Your task to perform on an android device: Show the shopping cart on bestbuy.com. Add "asus rog" to the cart on bestbuy.com, then select checkout. Image 0: 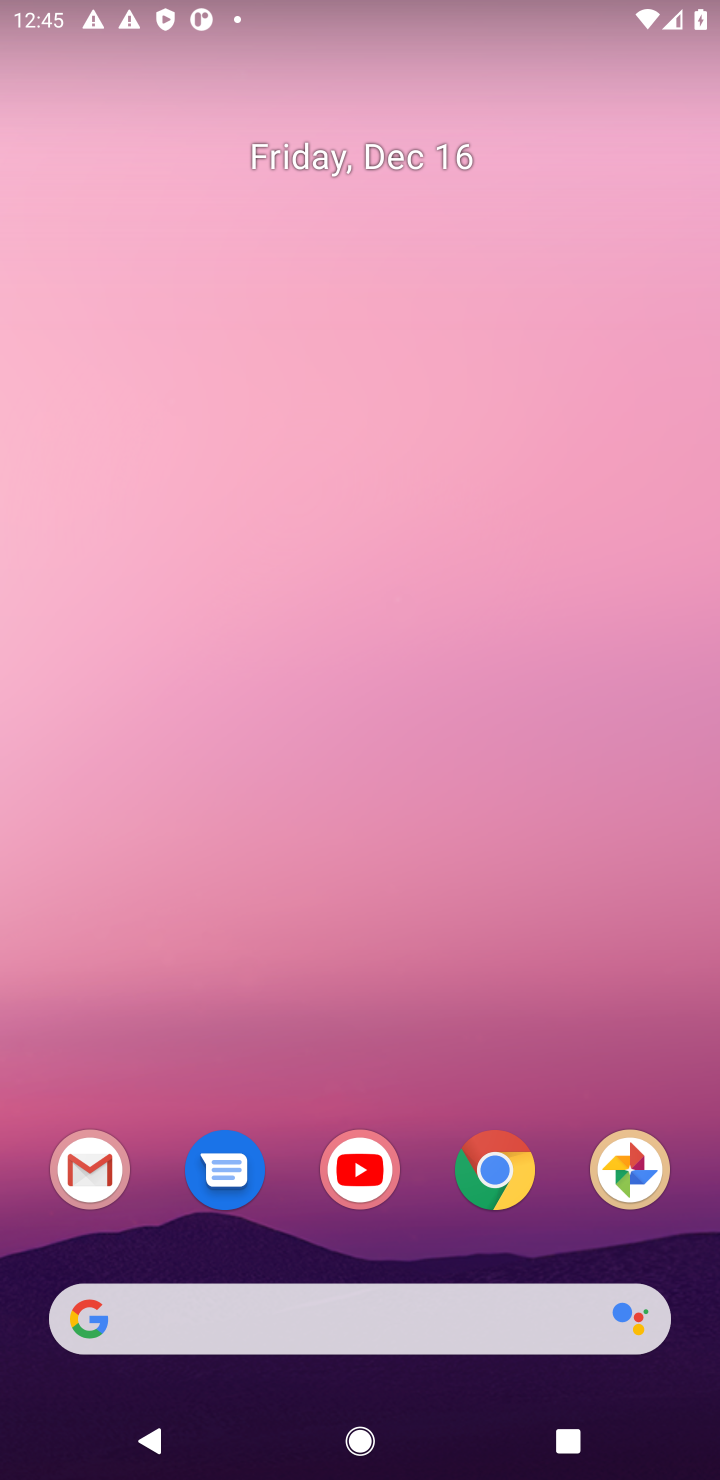
Step 0: click (493, 1158)
Your task to perform on an android device: Show the shopping cart on bestbuy.com. Add "asus rog" to the cart on bestbuy.com, then select checkout. Image 1: 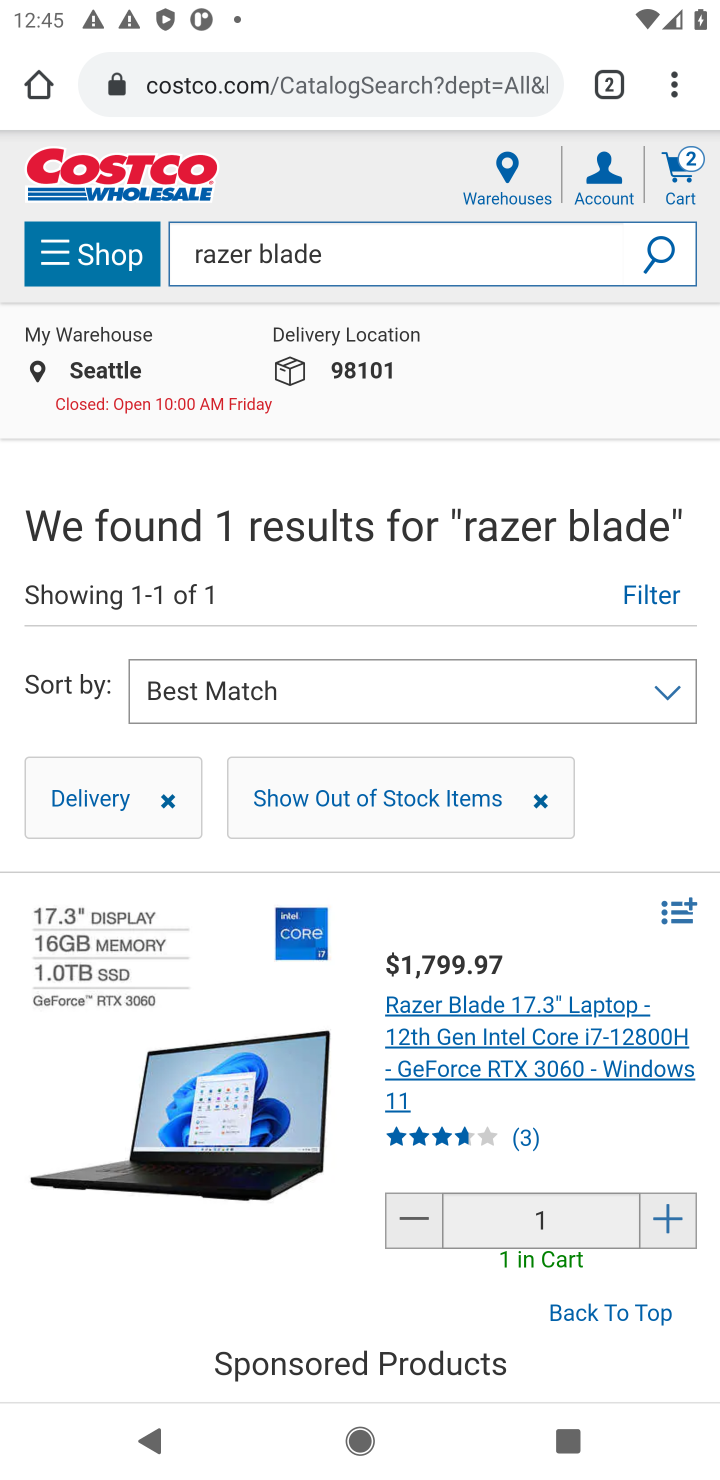
Step 1: click (301, 91)
Your task to perform on an android device: Show the shopping cart on bestbuy.com. Add "asus rog" to the cart on bestbuy.com, then select checkout. Image 2: 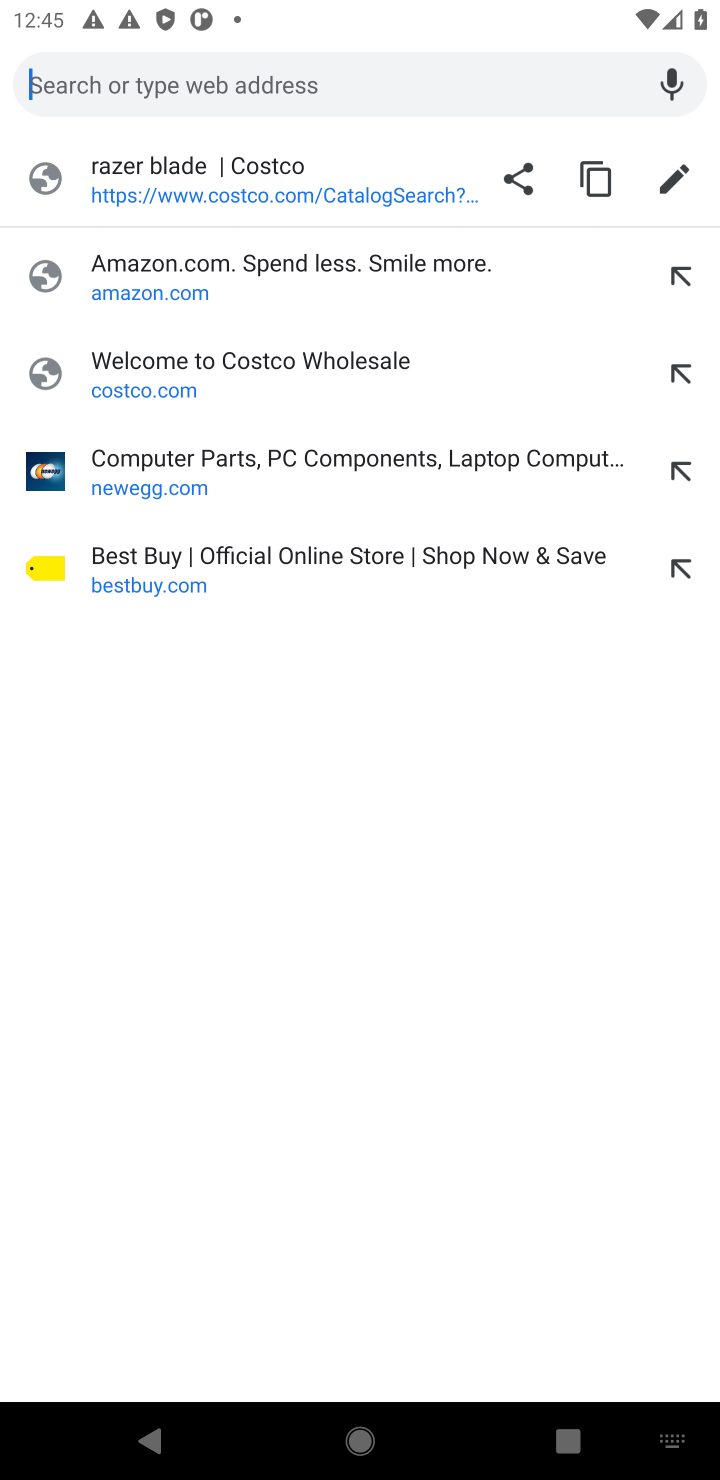
Step 2: click (147, 566)
Your task to perform on an android device: Show the shopping cart on bestbuy.com. Add "asus rog" to the cart on bestbuy.com, then select checkout. Image 3: 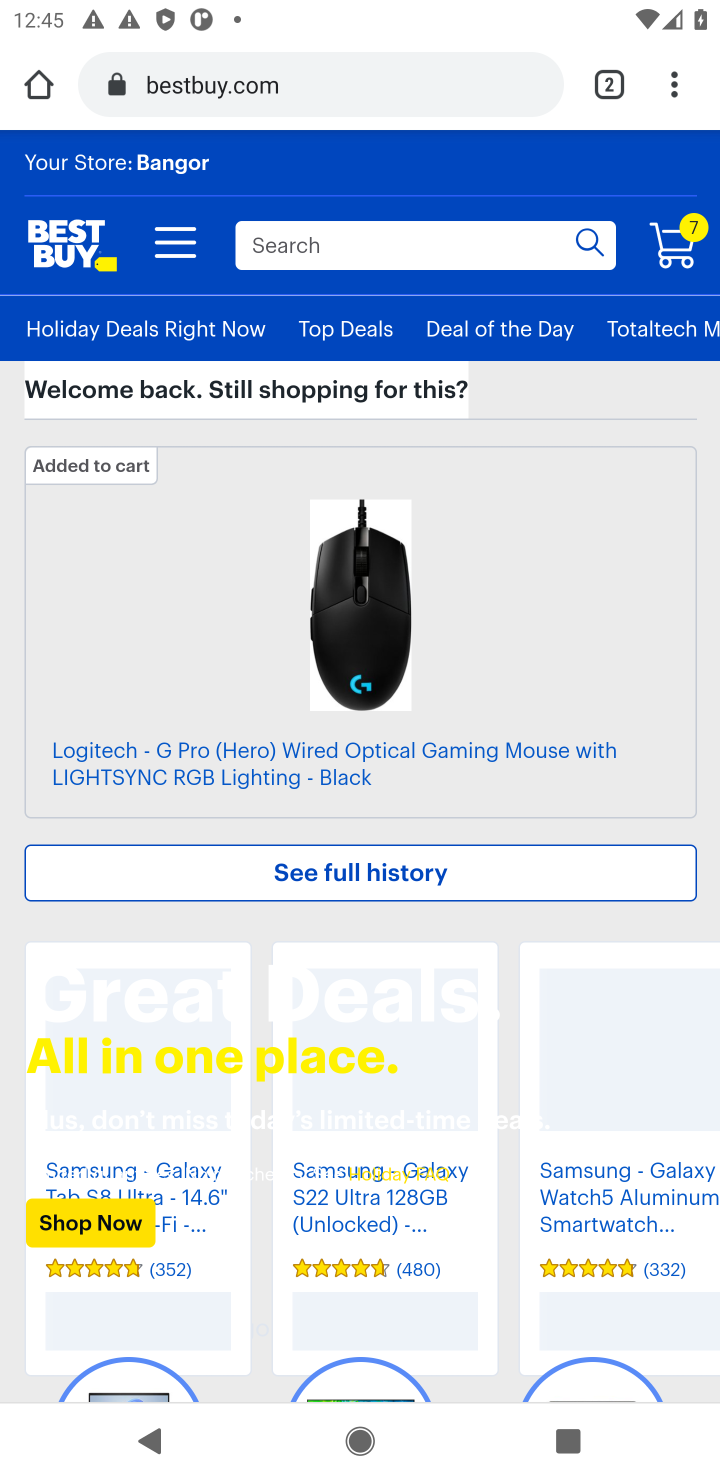
Step 3: click (672, 248)
Your task to perform on an android device: Show the shopping cart on bestbuy.com. Add "asus rog" to the cart on bestbuy.com, then select checkout. Image 4: 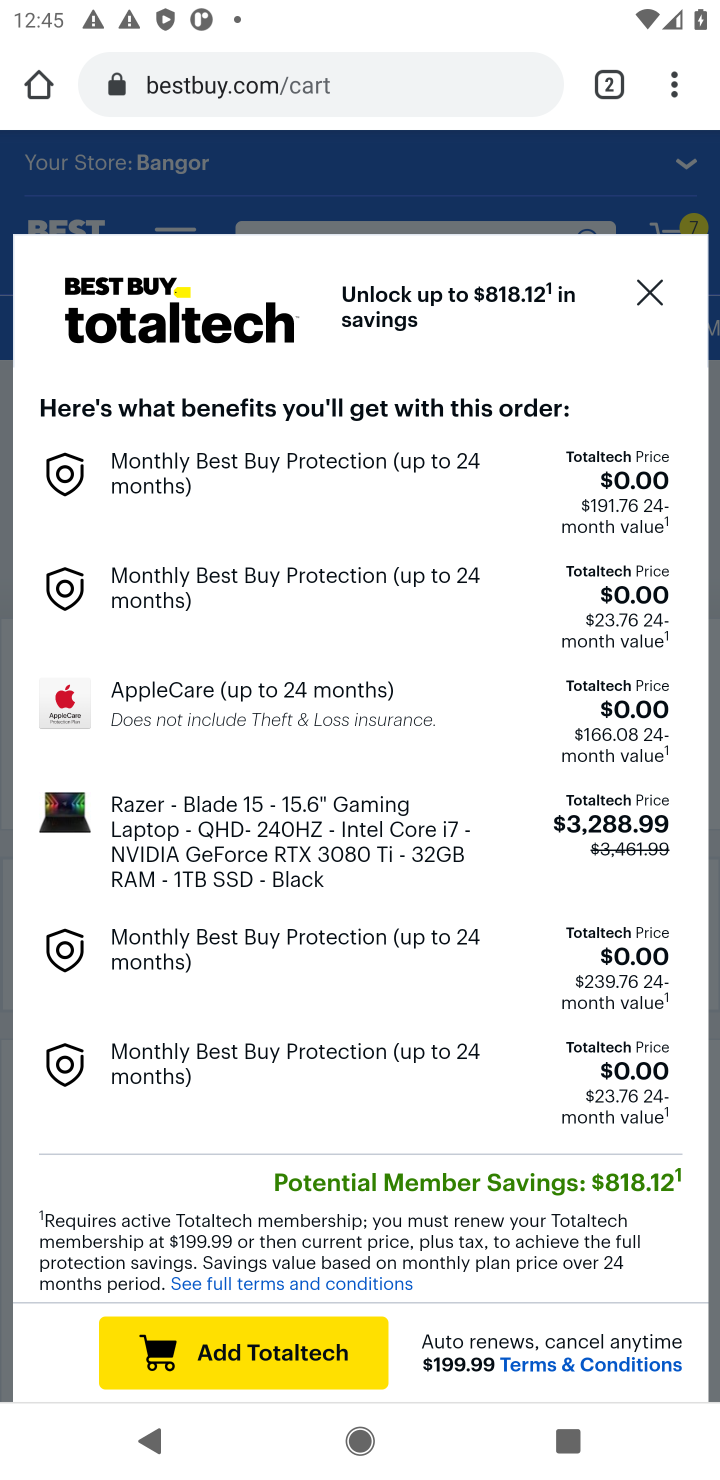
Step 4: click (646, 295)
Your task to perform on an android device: Show the shopping cart on bestbuy.com. Add "asus rog" to the cart on bestbuy.com, then select checkout. Image 5: 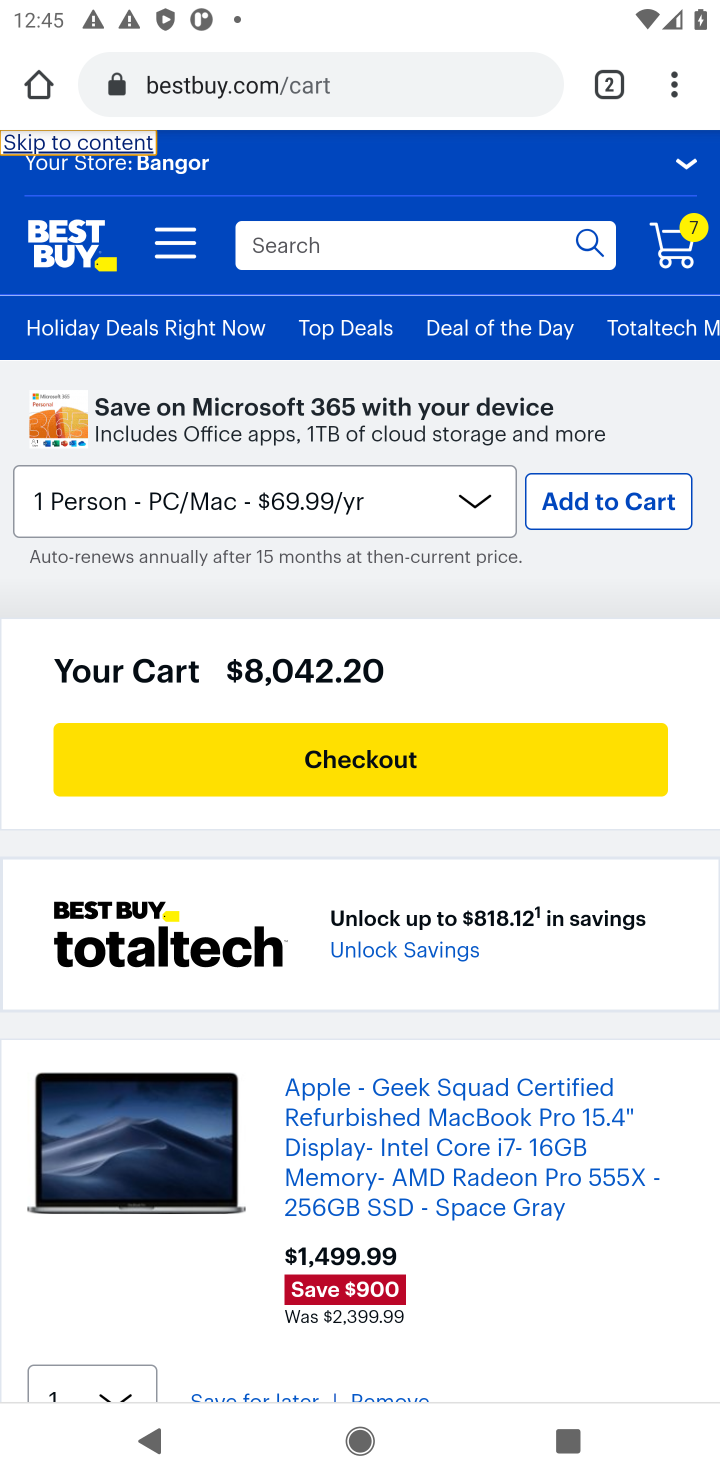
Step 5: drag from (405, 968) to (389, 519)
Your task to perform on an android device: Show the shopping cart on bestbuy.com. Add "asus rog" to the cart on bestbuy.com, then select checkout. Image 6: 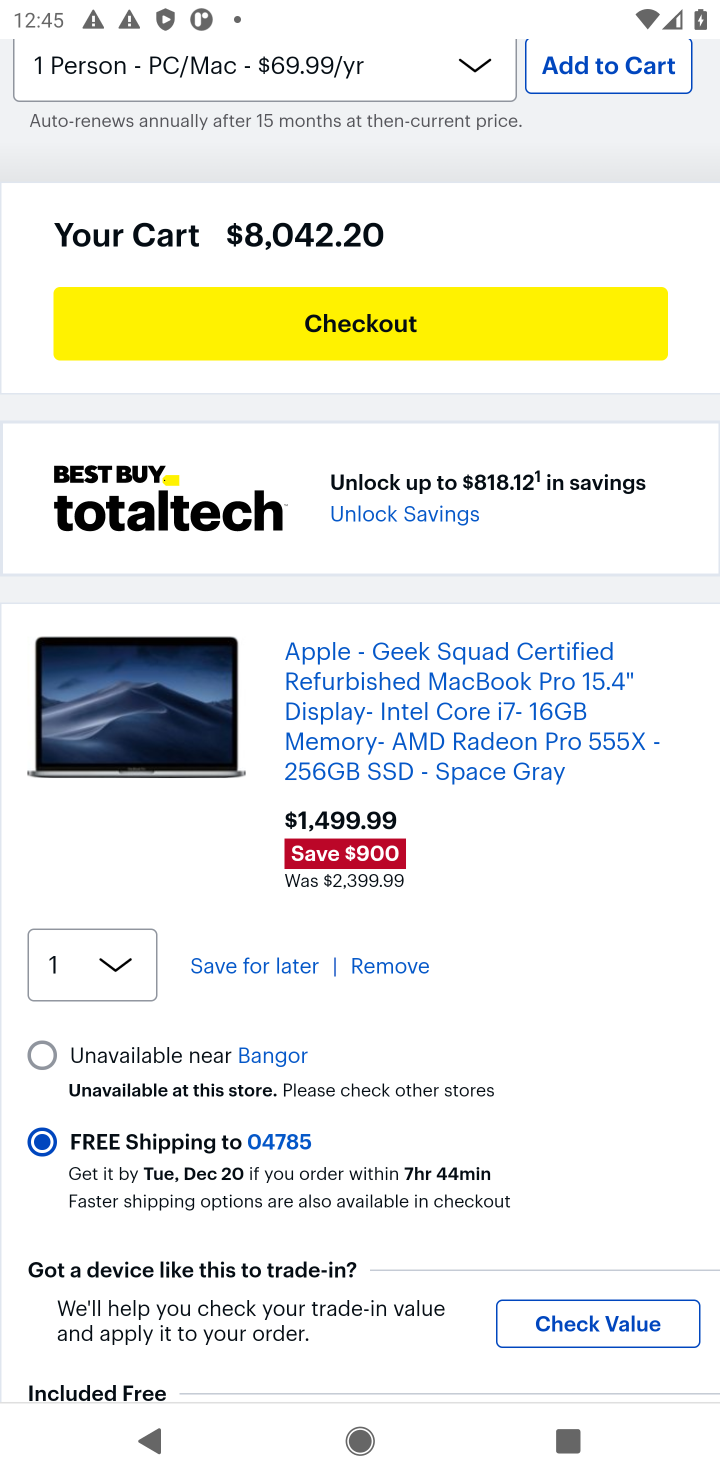
Step 6: drag from (456, 434) to (471, 988)
Your task to perform on an android device: Show the shopping cart on bestbuy.com. Add "asus rog" to the cart on bestbuy.com, then select checkout. Image 7: 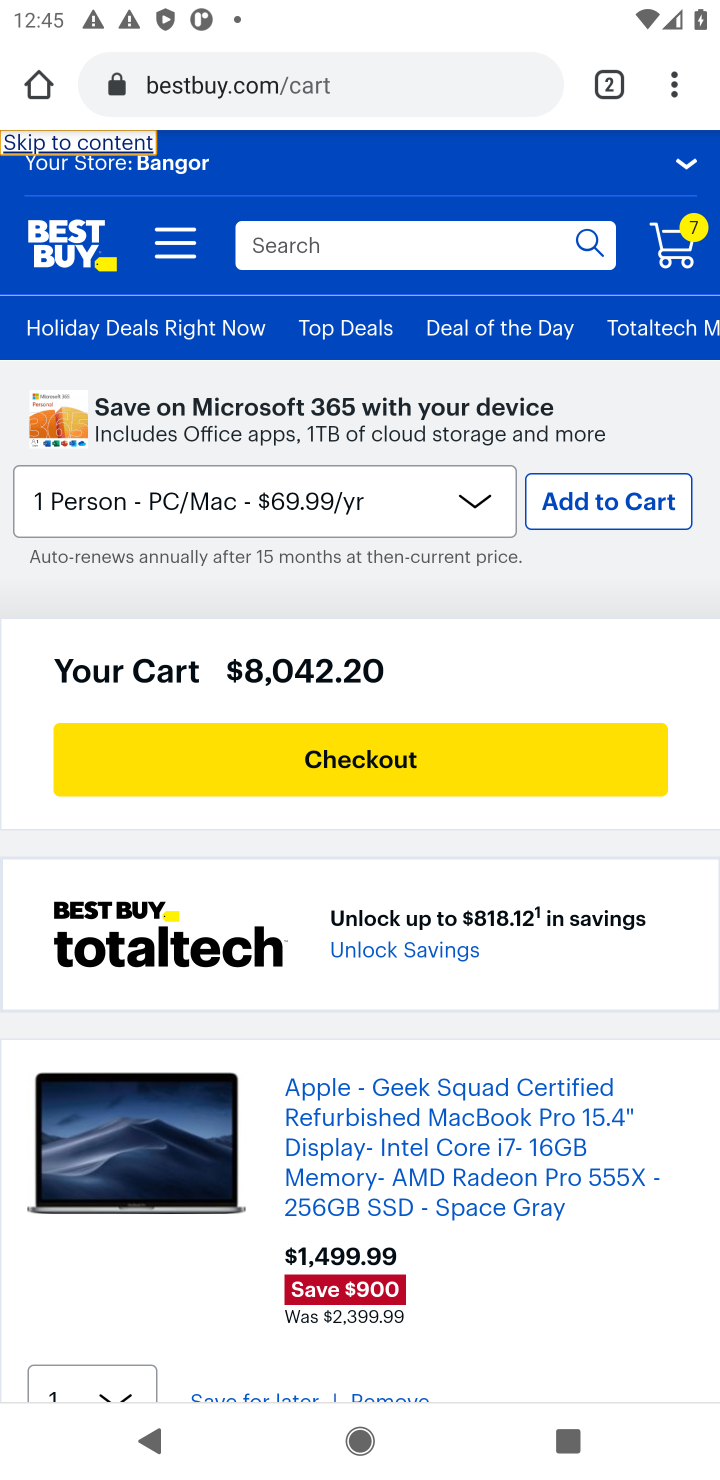
Step 7: click (290, 256)
Your task to perform on an android device: Show the shopping cart on bestbuy.com. Add "asus rog" to the cart on bestbuy.com, then select checkout. Image 8: 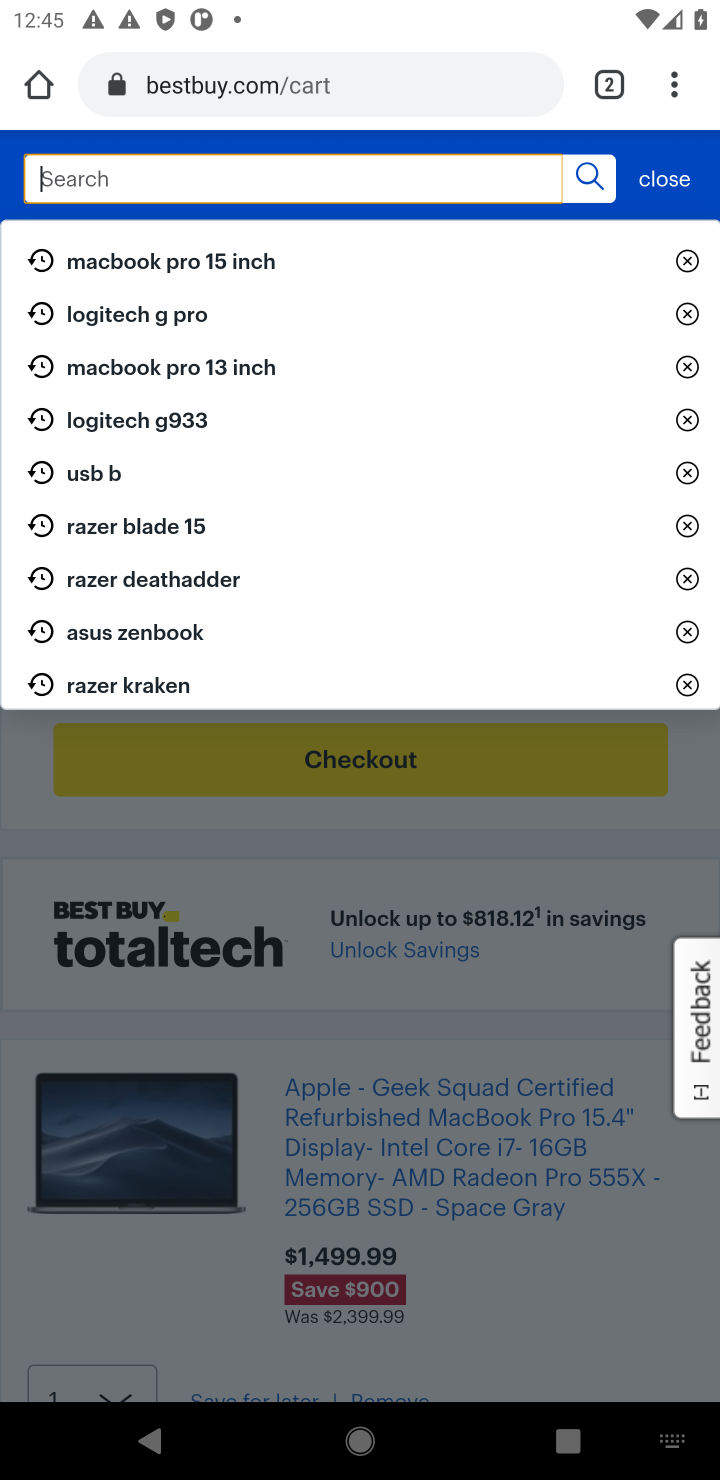
Step 8: type "asus rog"
Your task to perform on an android device: Show the shopping cart on bestbuy.com. Add "asus rog" to the cart on bestbuy.com, then select checkout. Image 9: 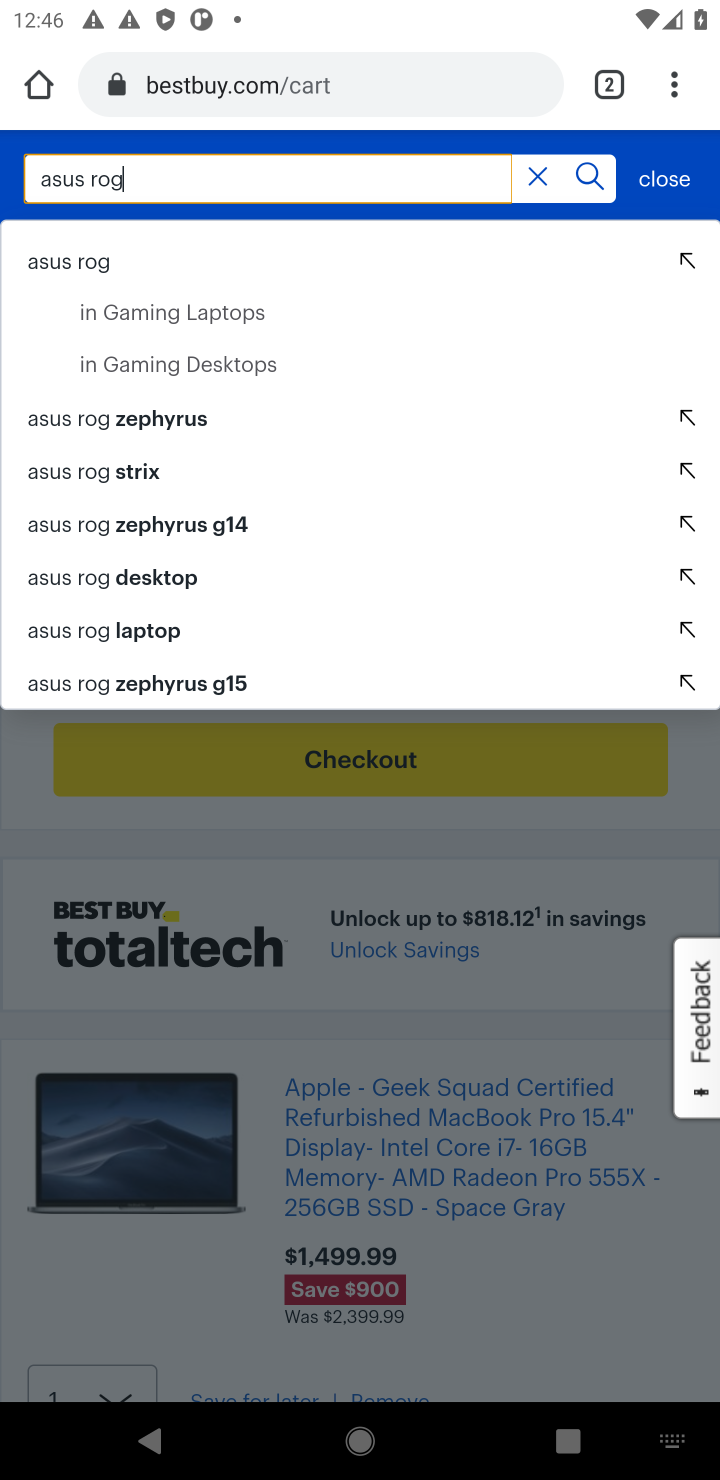
Step 9: click (44, 276)
Your task to perform on an android device: Show the shopping cart on bestbuy.com. Add "asus rog" to the cart on bestbuy.com, then select checkout. Image 10: 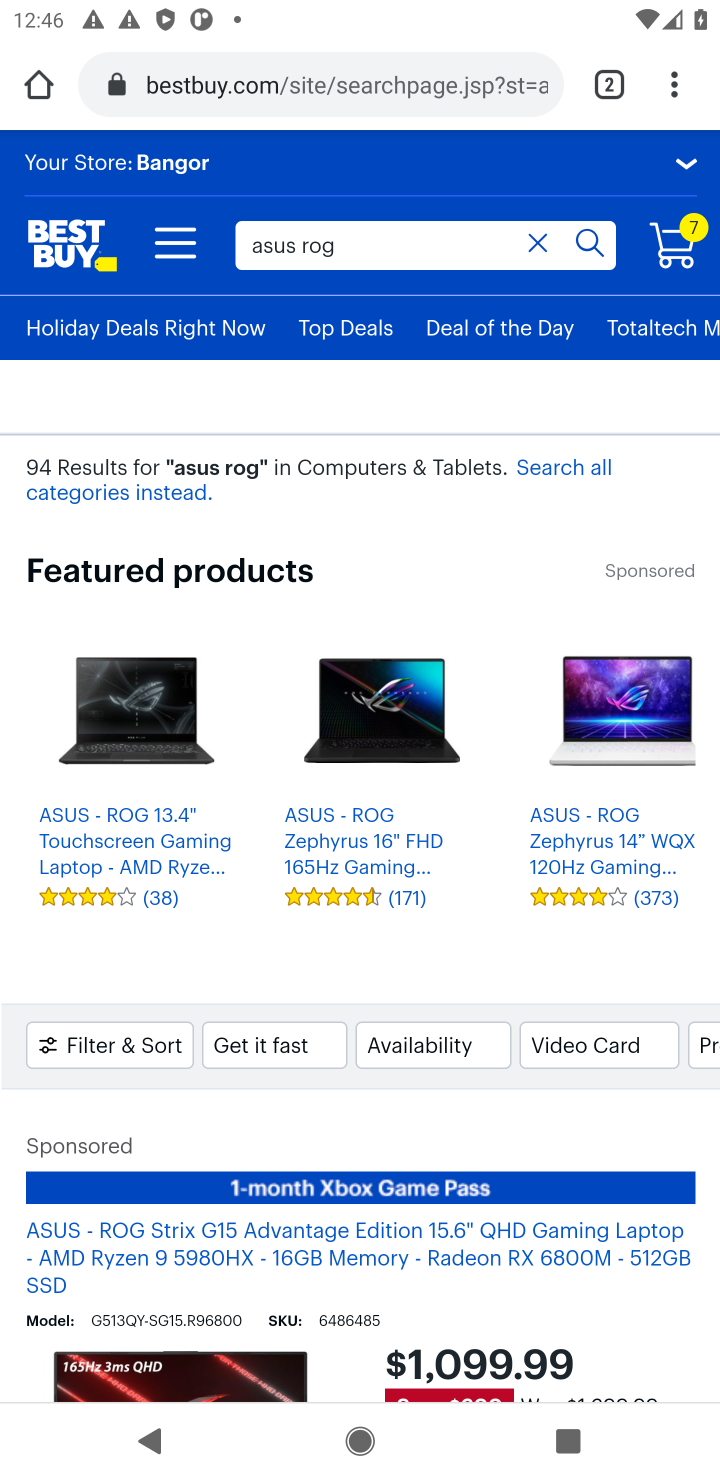
Step 10: drag from (289, 1151) to (268, 545)
Your task to perform on an android device: Show the shopping cart on bestbuy.com. Add "asus rog" to the cart on bestbuy.com, then select checkout. Image 11: 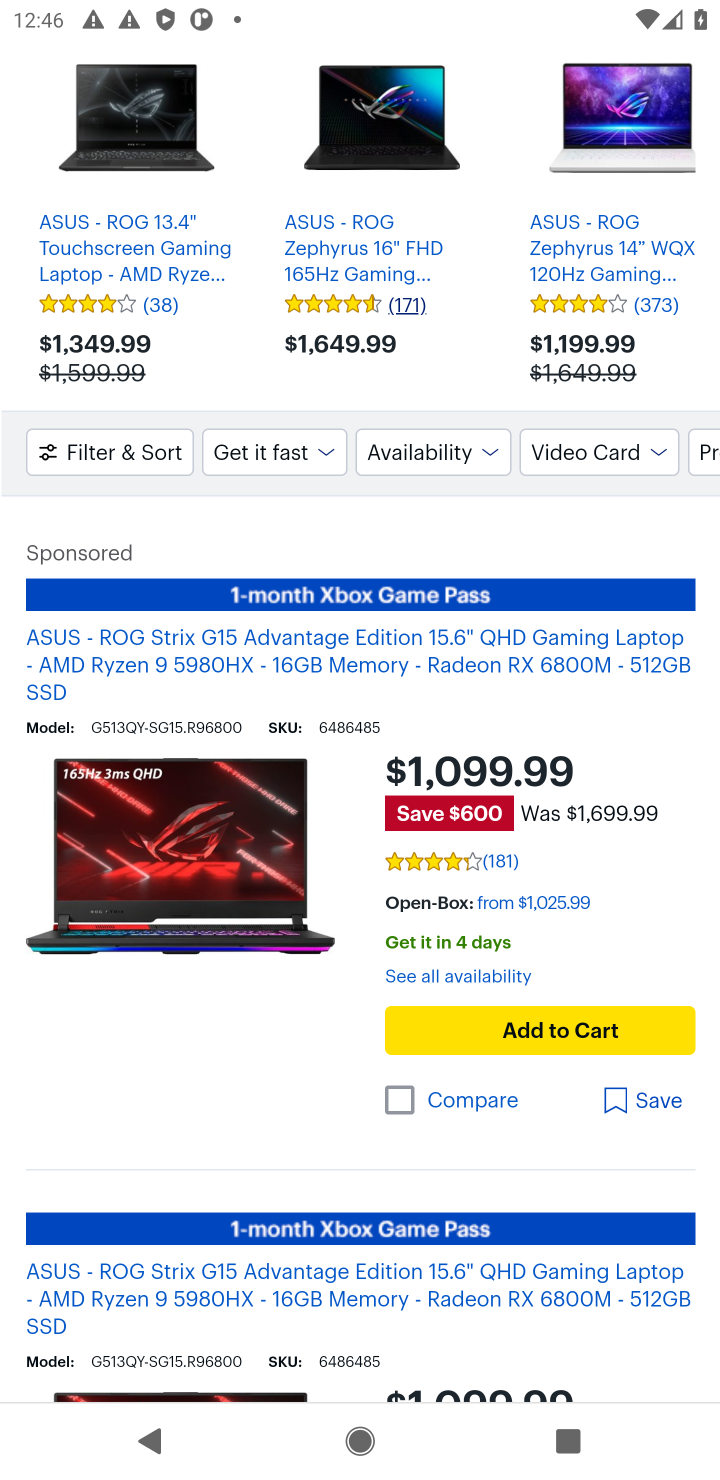
Step 11: click (485, 1029)
Your task to perform on an android device: Show the shopping cart on bestbuy.com. Add "asus rog" to the cart on bestbuy.com, then select checkout. Image 12: 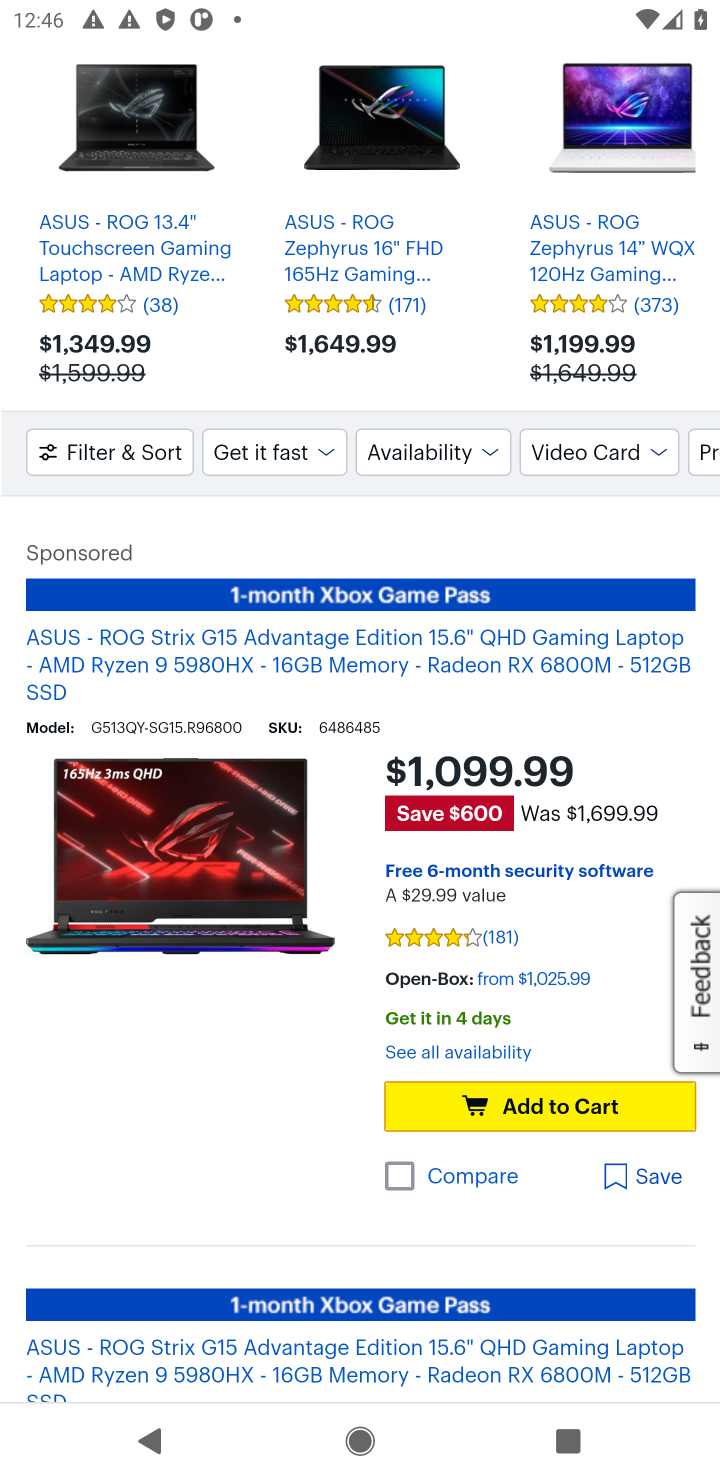
Step 12: click (556, 1114)
Your task to perform on an android device: Show the shopping cart on bestbuy.com. Add "asus rog" to the cart on bestbuy.com, then select checkout. Image 13: 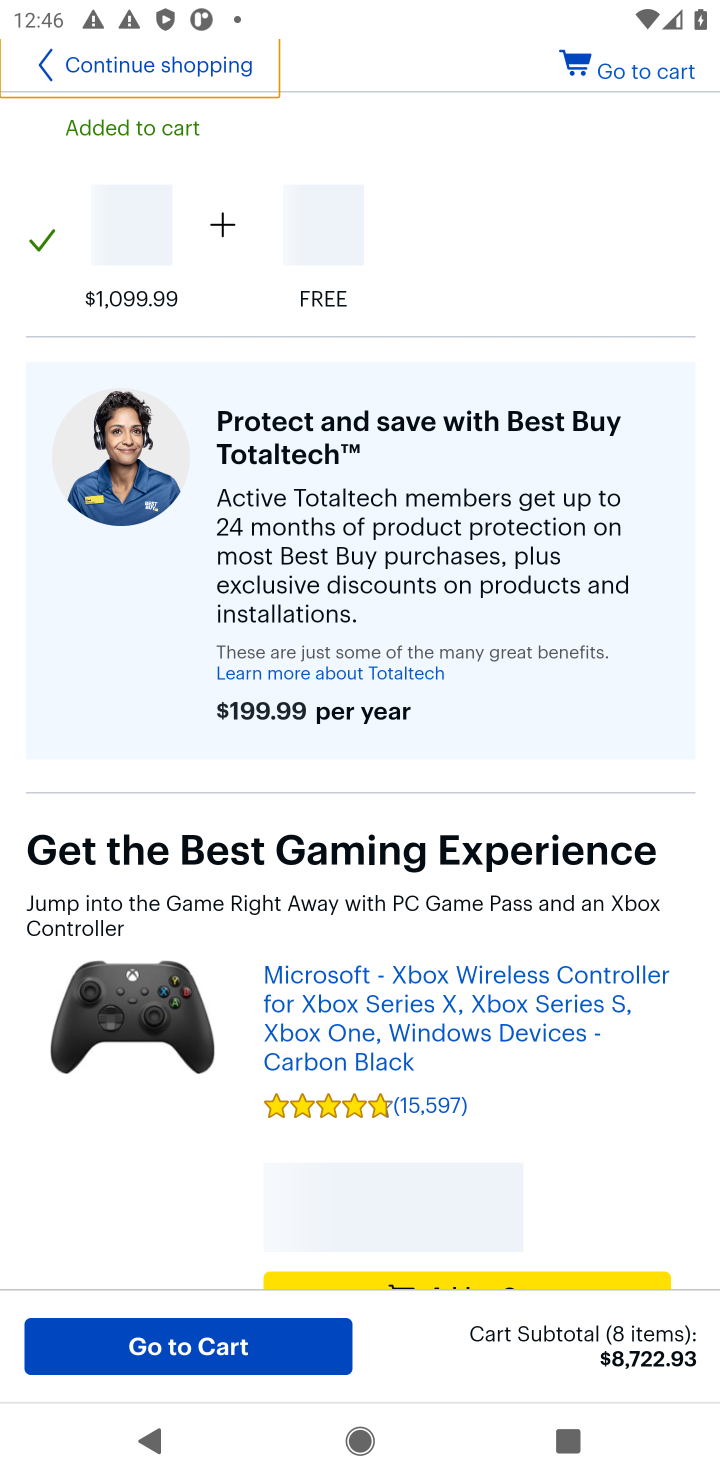
Step 13: click (631, 72)
Your task to perform on an android device: Show the shopping cart on bestbuy.com. Add "asus rog" to the cart on bestbuy.com, then select checkout. Image 14: 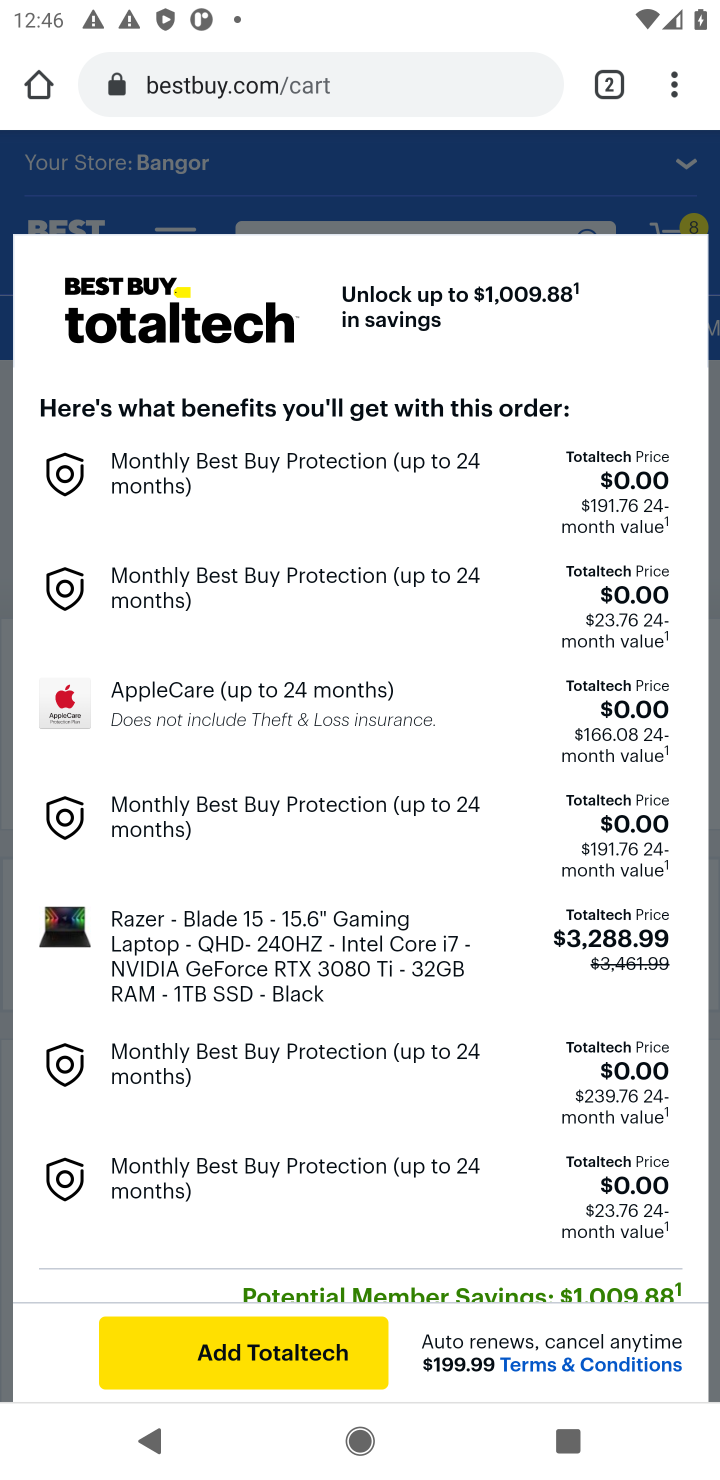
Step 14: click (352, 760)
Your task to perform on an android device: Show the shopping cart on bestbuy.com. Add "asus rog" to the cart on bestbuy.com, then select checkout. Image 15: 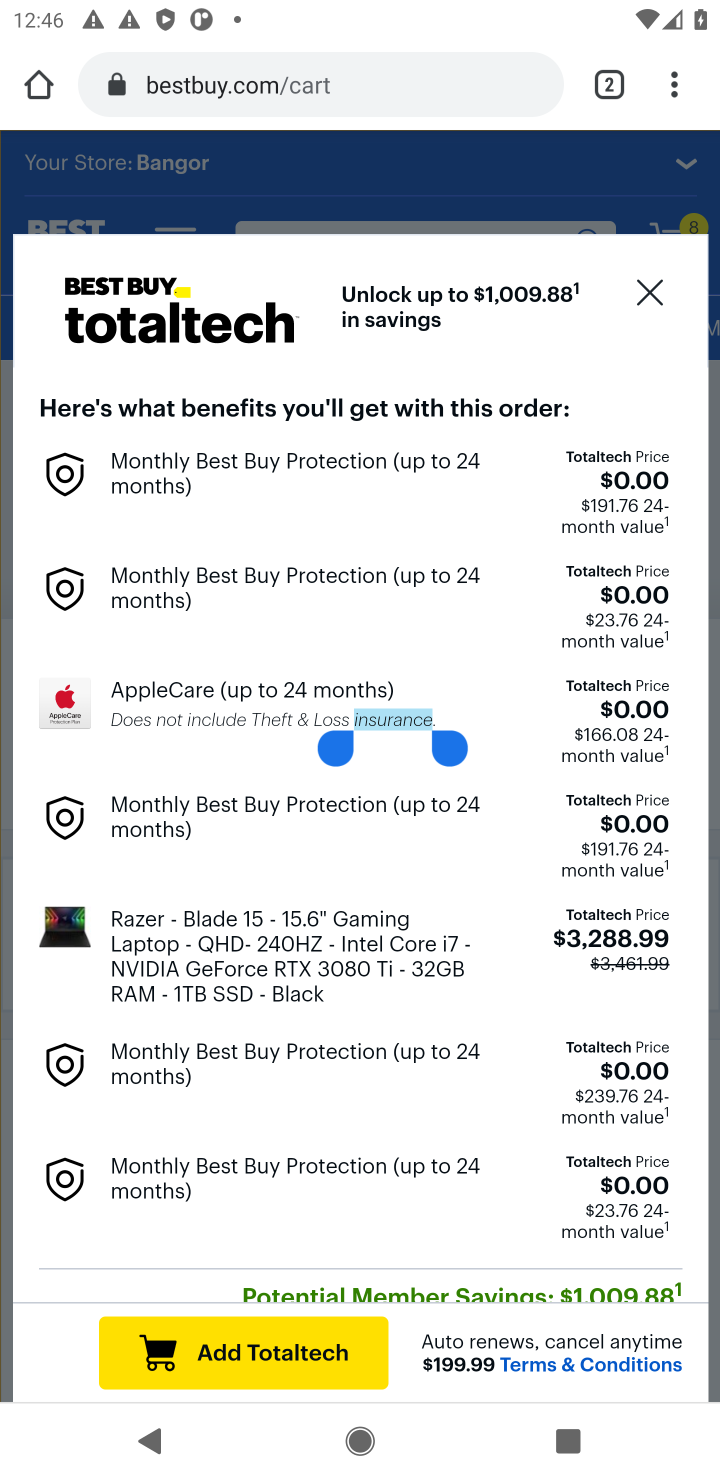
Step 15: click (639, 286)
Your task to perform on an android device: Show the shopping cart on bestbuy.com. Add "asus rog" to the cart on bestbuy.com, then select checkout. Image 16: 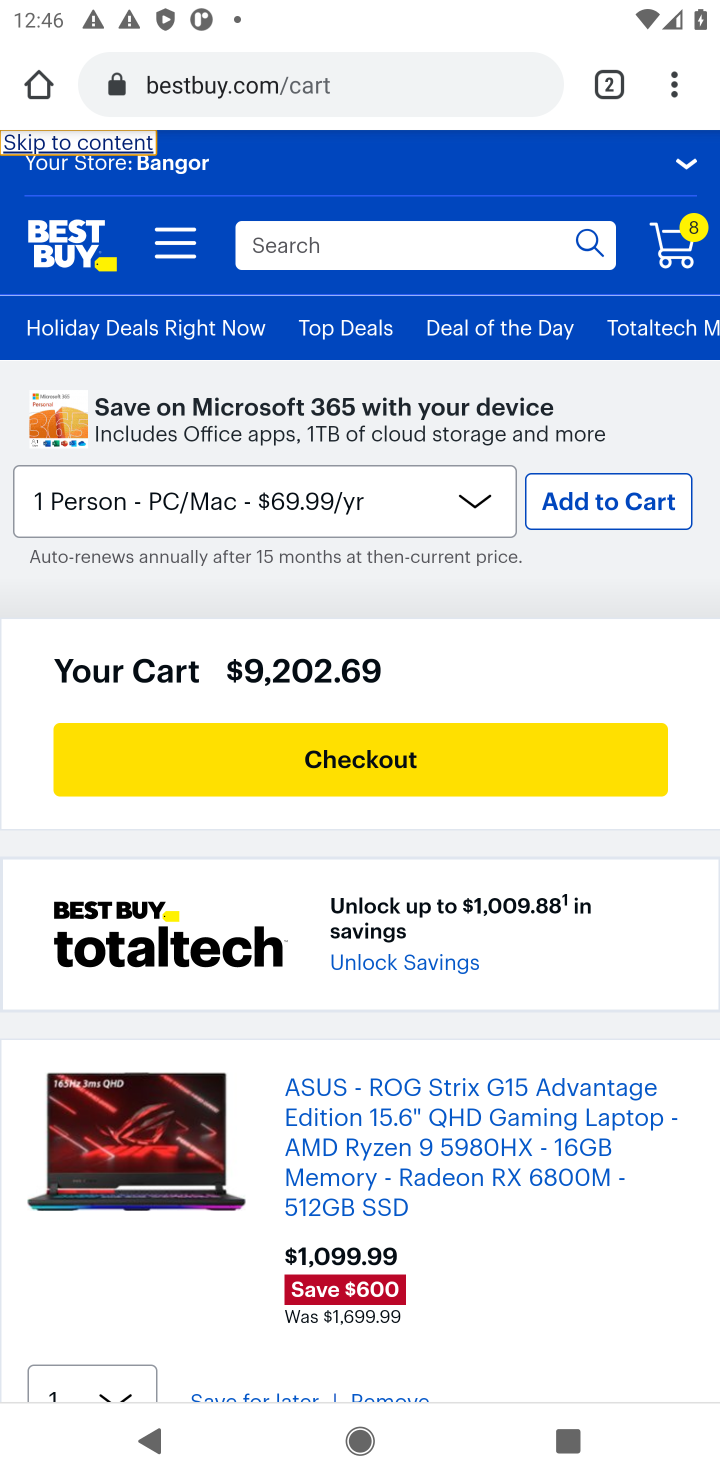
Step 16: click (380, 763)
Your task to perform on an android device: Show the shopping cart on bestbuy.com. Add "asus rog" to the cart on bestbuy.com, then select checkout. Image 17: 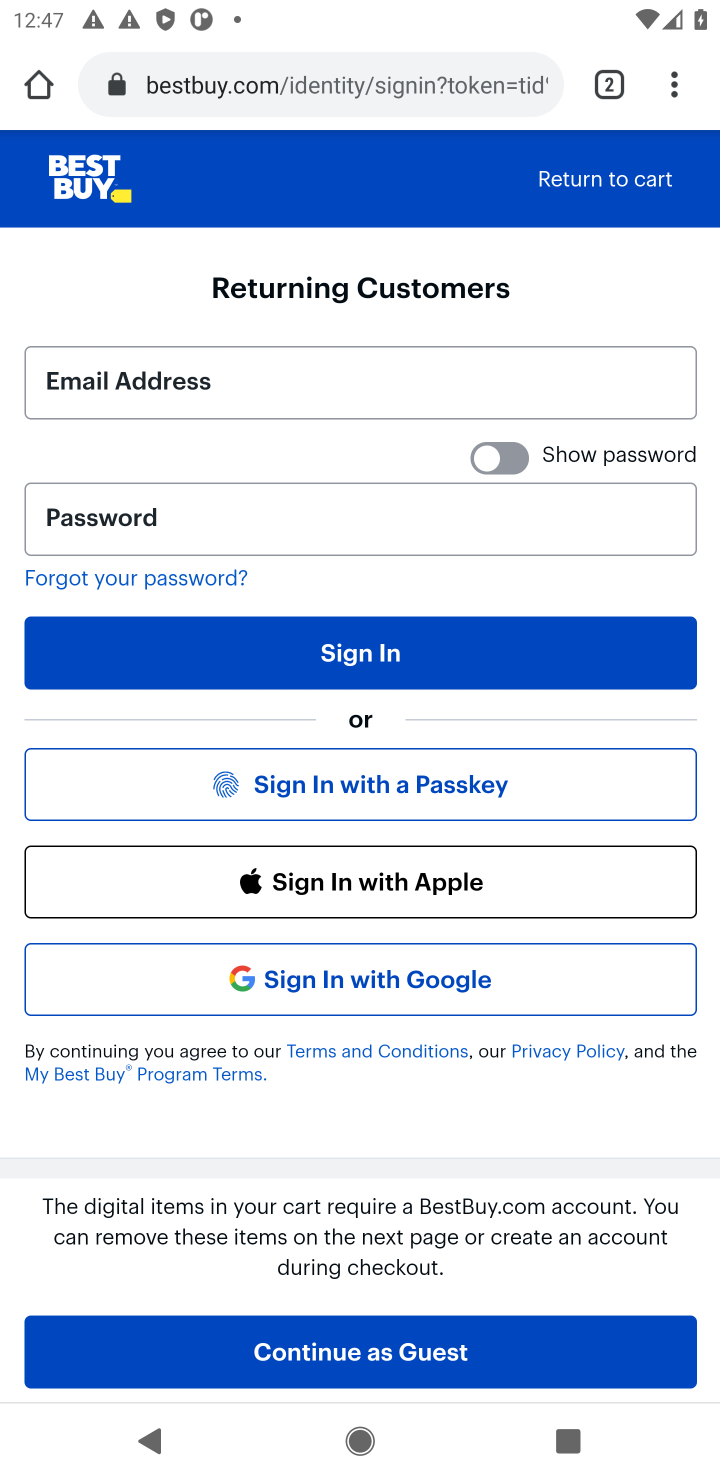
Step 17: task complete